Your task to perform on an android device: turn off airplane mode Image 0: 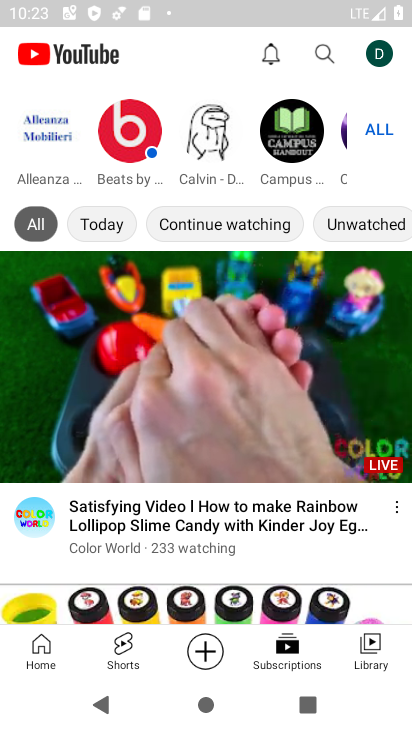
Step 0: press home button
Your task to perform on an android device: turn off airplane mode Image 1: 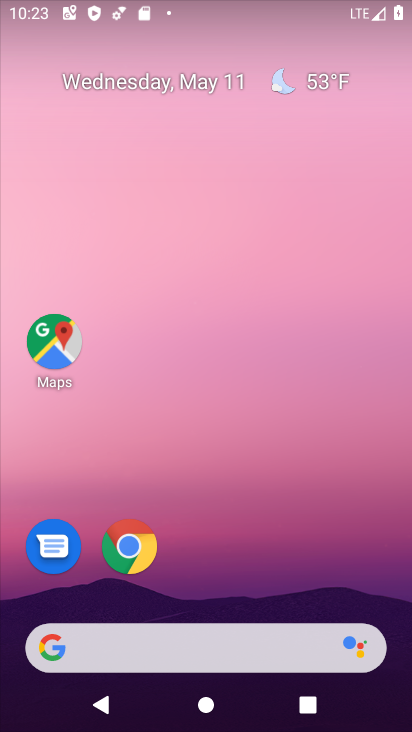
Step 1: task complete